Your task to perform on an android device: Open Google Maps and go to "Timeline" Image 0: 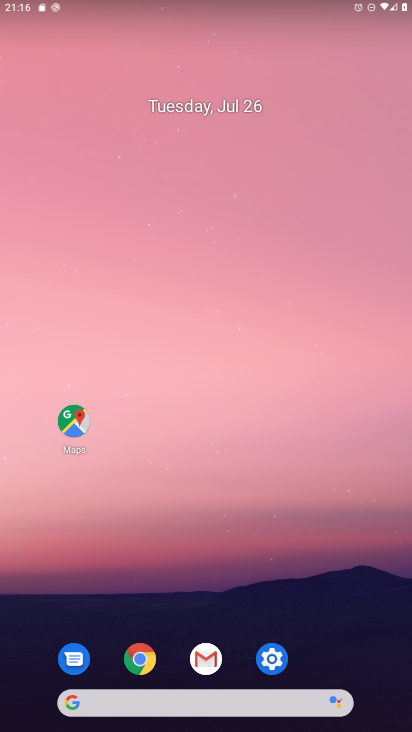
Step 0: click (88, 412)
Your task to perform on an android device: Open Google Maps and go to "Timeline" Image 1: 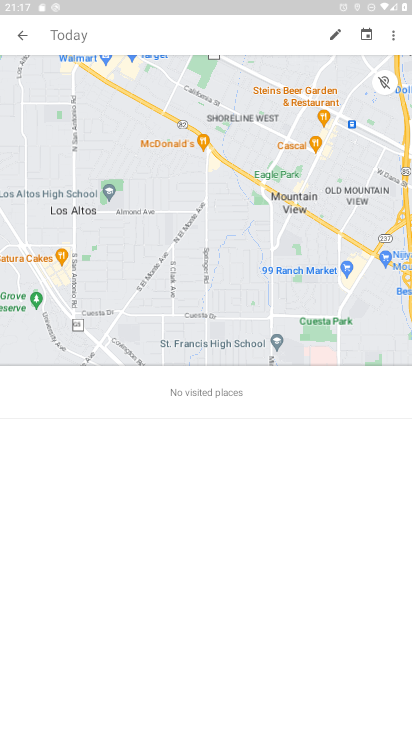
Step 1: task complete